Your task to perform on an android device: Open calendar and show me the third week of next month Image 0: 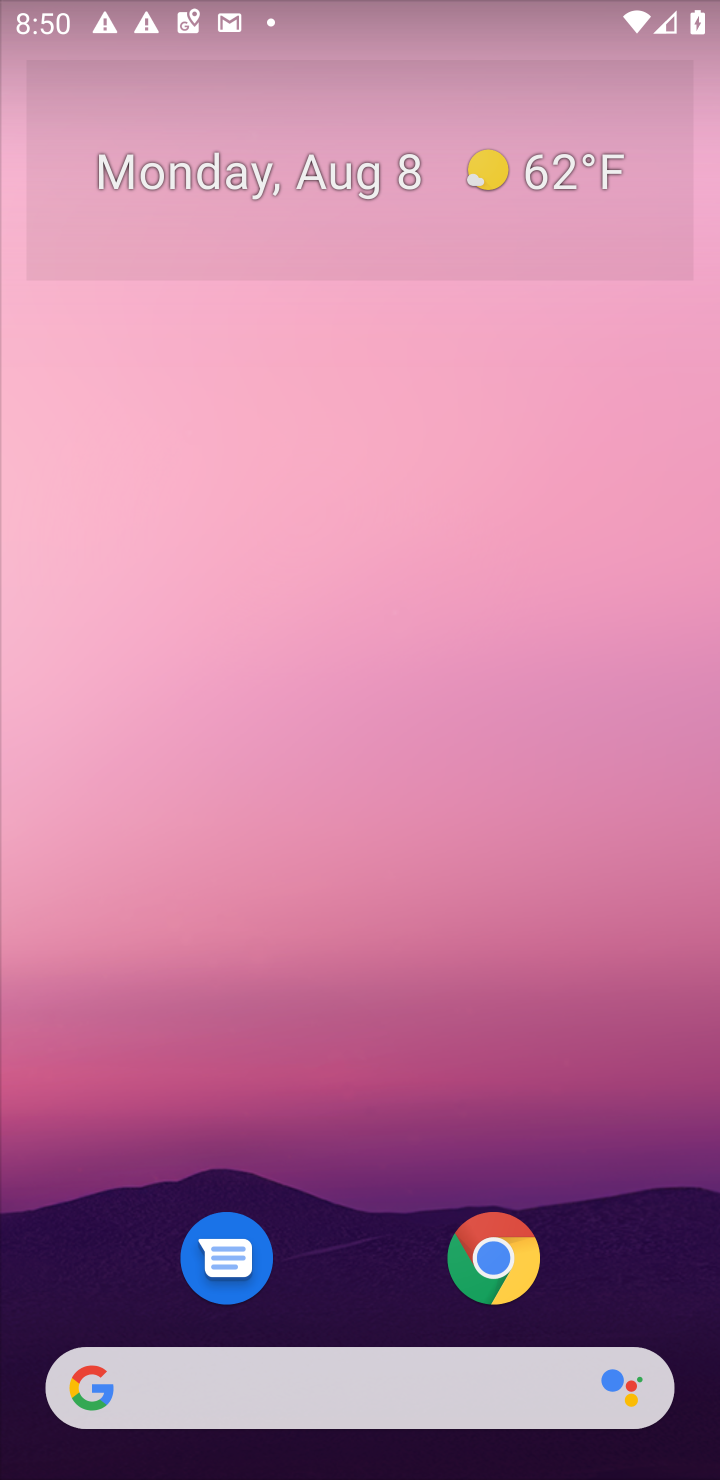
Step 0: press home button
Your task to perform on an android device: Open calendar and show me the third week of next month Image 1: 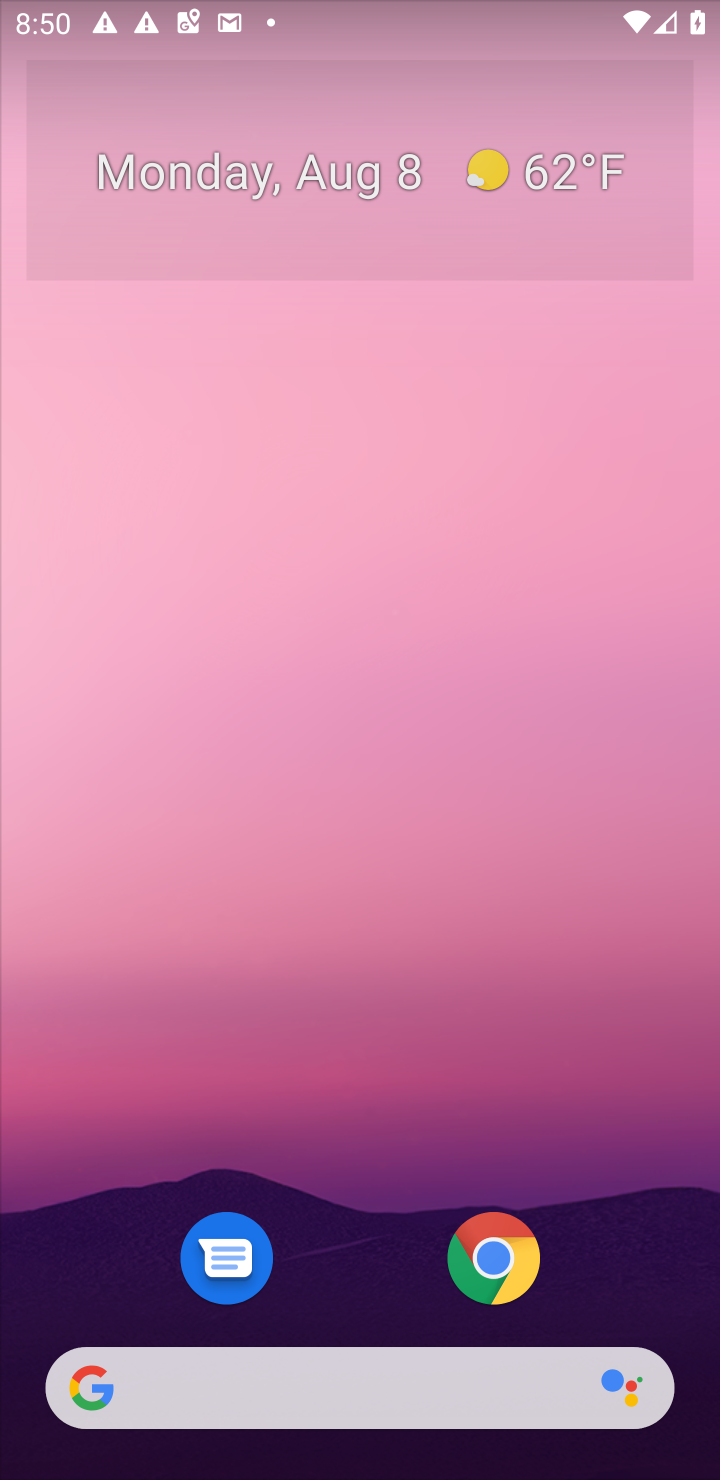
Step 1: drag from (469, 1121) to (599, 28)
Your task to perform on an android device: Open calendar and show me the third week of next month Image 2: 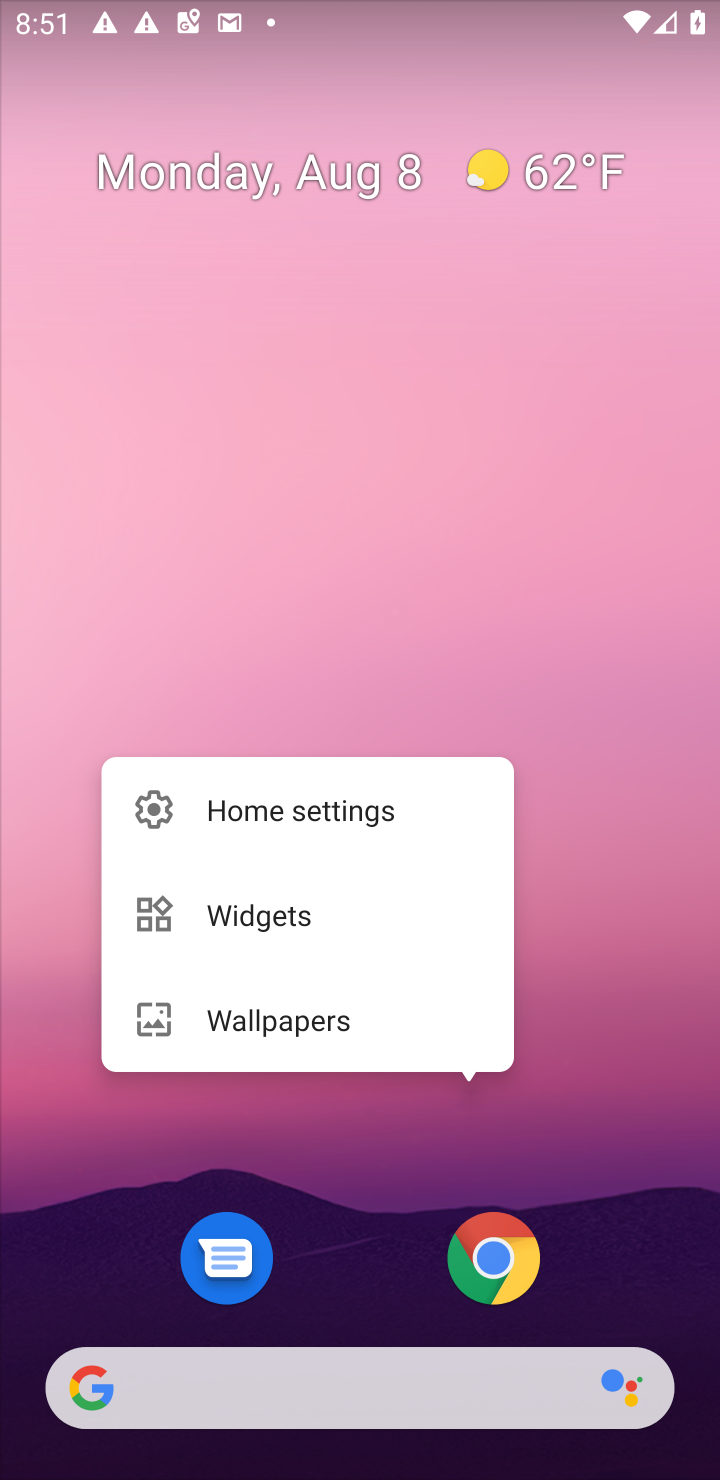
Step 2: click (554, 435)
Your task to perform on an android device: Open calendar and show me the third week of next month Image 3: 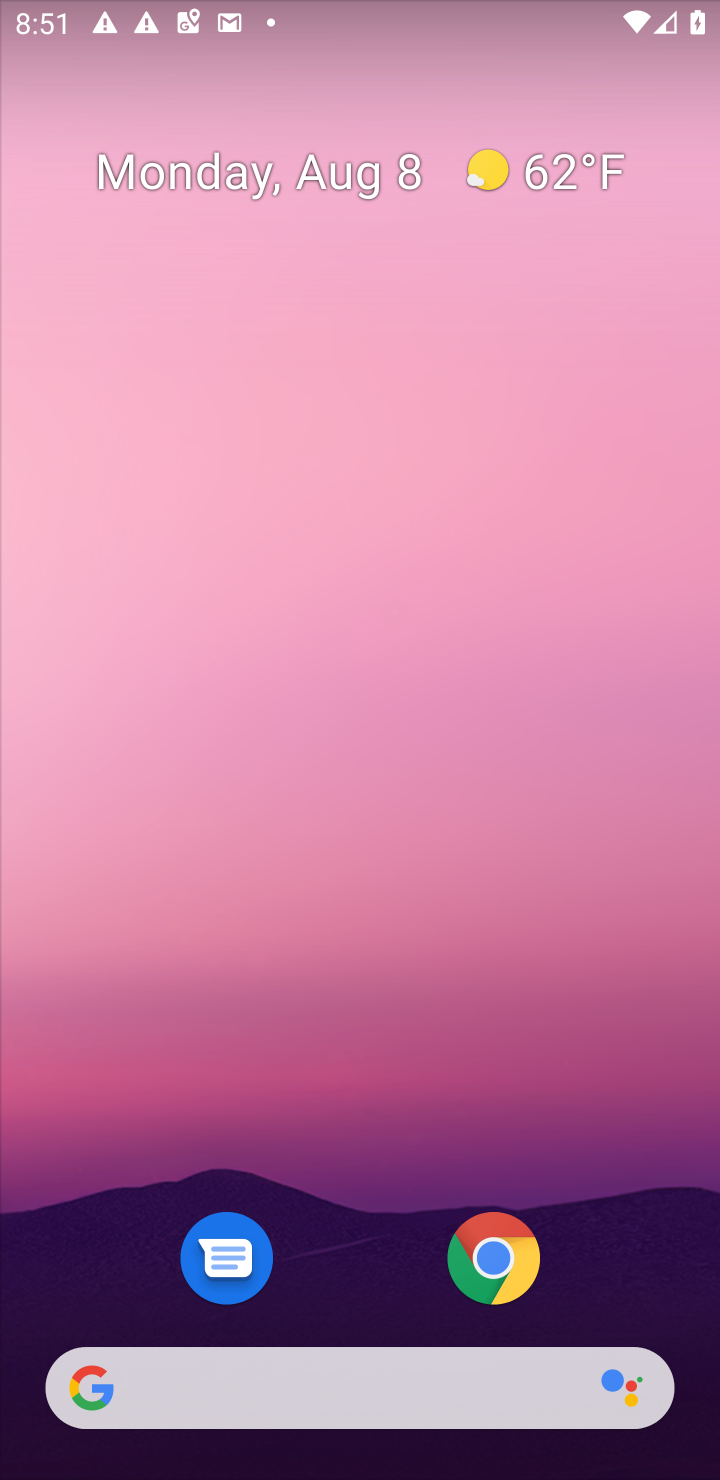
Step 3: drag from (309, 985) to (390, 193)
Your task to perform on an android device: Open calendar and show me the third week of next month Image 4: 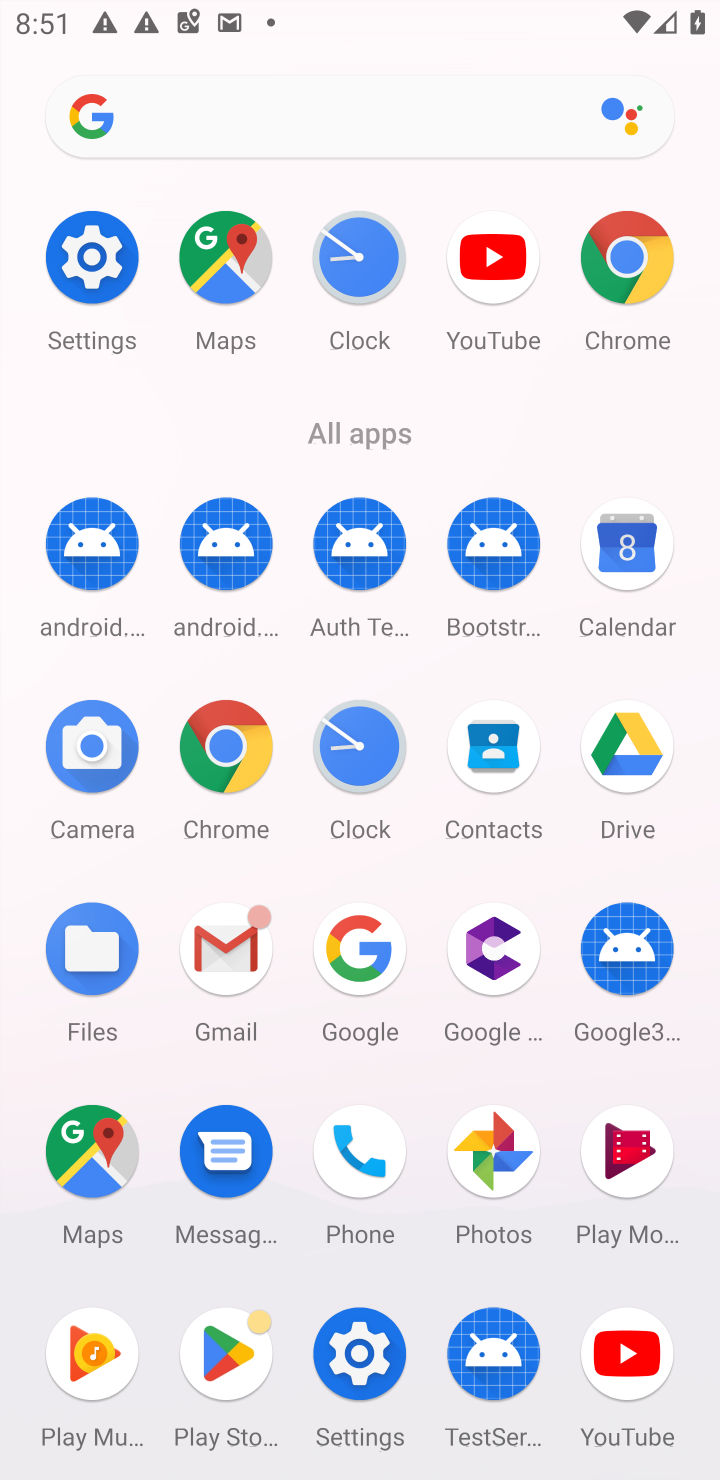
Step 4: click (635, 558)
Your task to perform on an android device: Open calendar and show me the third week of next month Image 5: 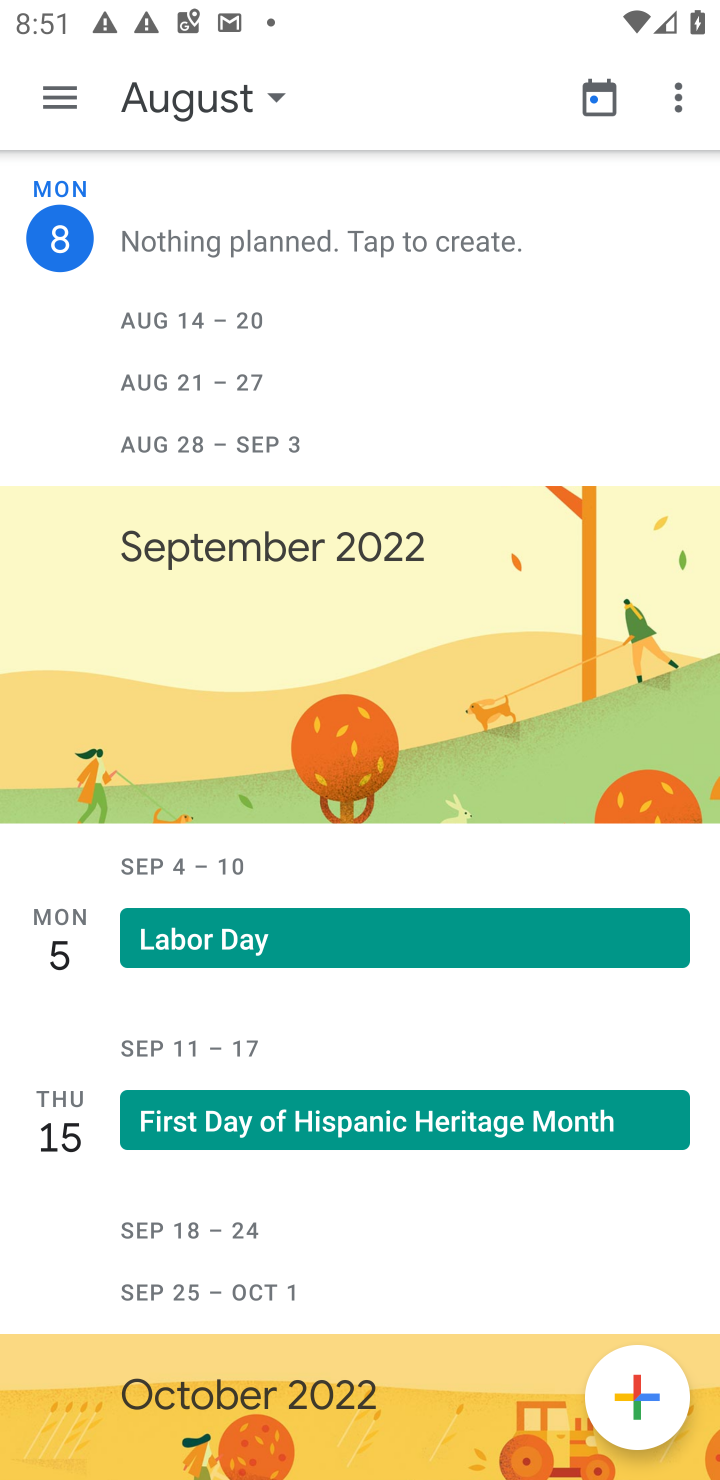
Step 5: task complete